Your task to perform on an android device: When is my next appointment? Image 0: 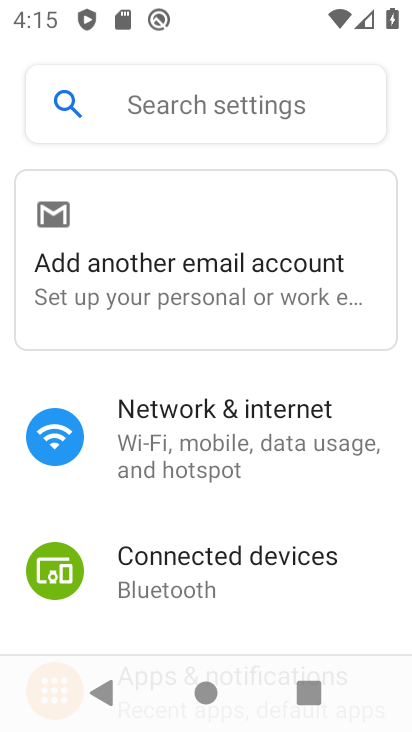
Step 0: press home button
Your task to perform on an android device: When is my next appointment? Image 1: 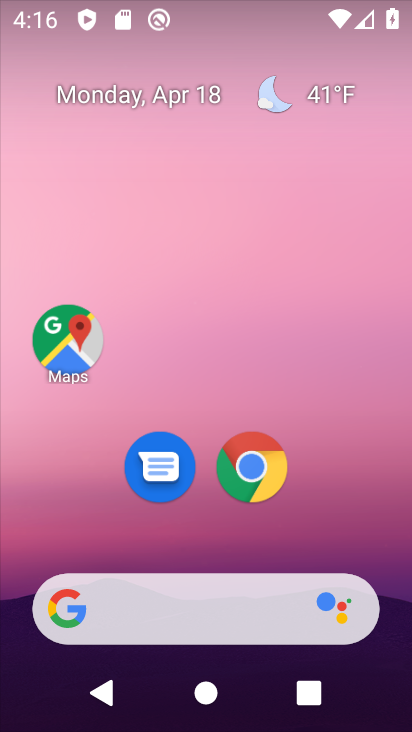
Step 1: drag from (211, 551) to (227, 74)
Your task to perform on an android device: When is my next appointment? Image 2: 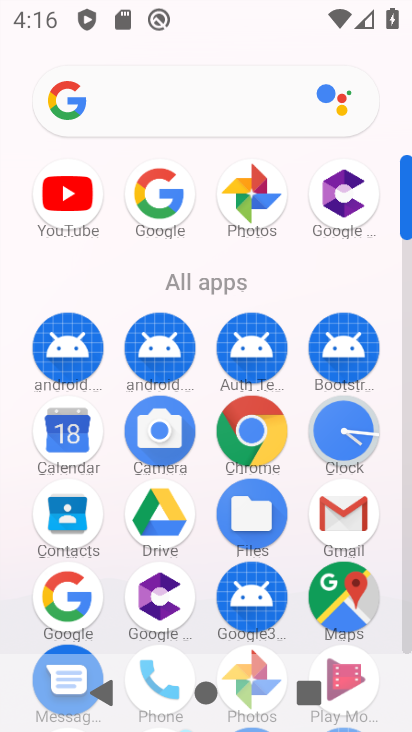
Step 2: click (69, 444)
Your task to perform on an android device: When is my next appointment? Image 3: 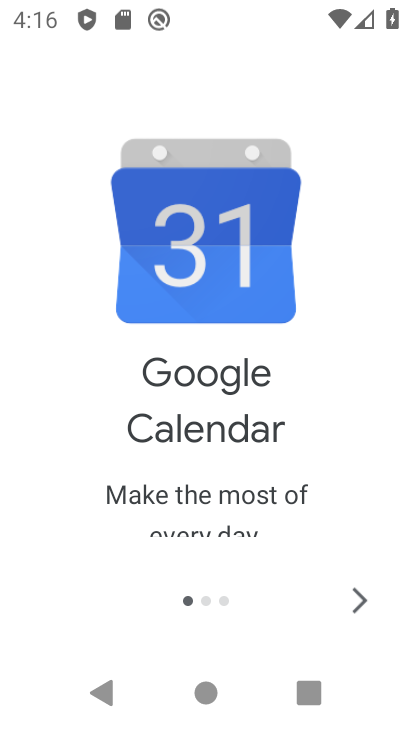
Step 3: click (351, 599)
Your task to perform on an android device: When is my next appointment? Image 4: 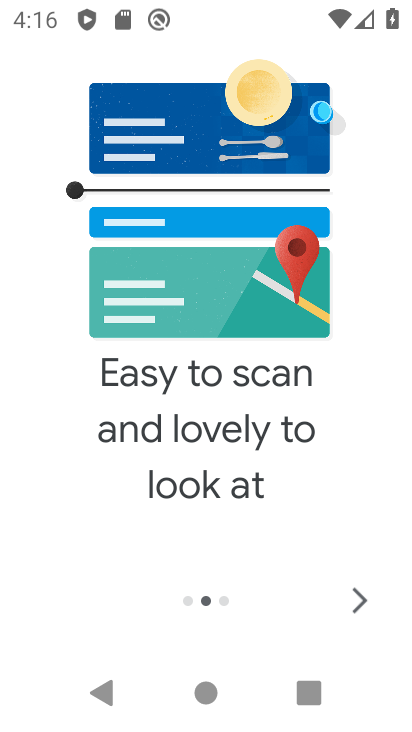
Step 4: click (351, 599)
Your task to perform on an android device: When is my next appointment? Image 5: 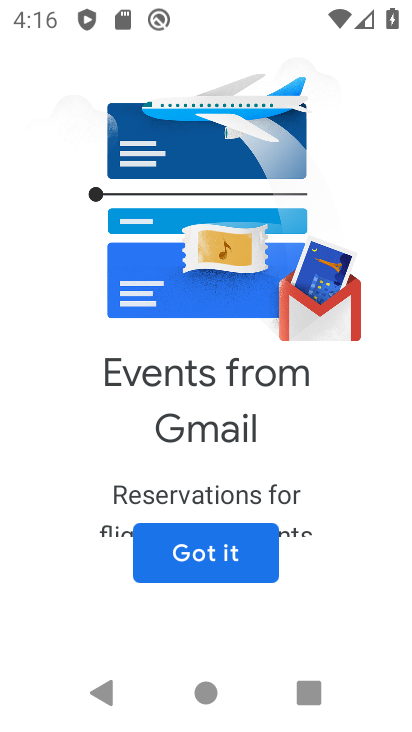
Step 5: click (250, 559)
Your task to perform on an android device: When is my next appointment? Image 6: 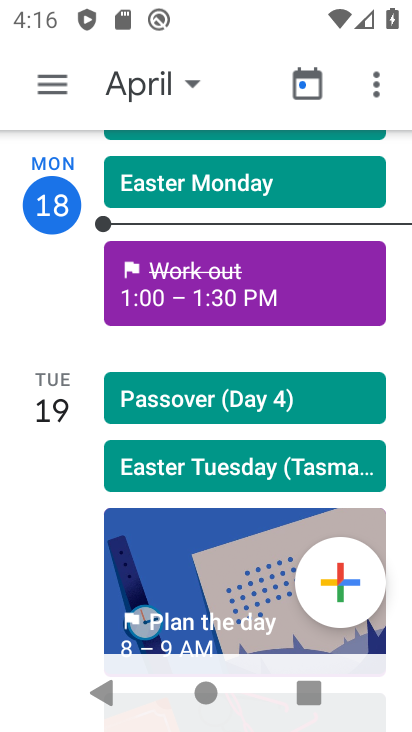
Step 6: click (181, 91)
Your task to perform on an android device: When is my next appointment? Image 7: 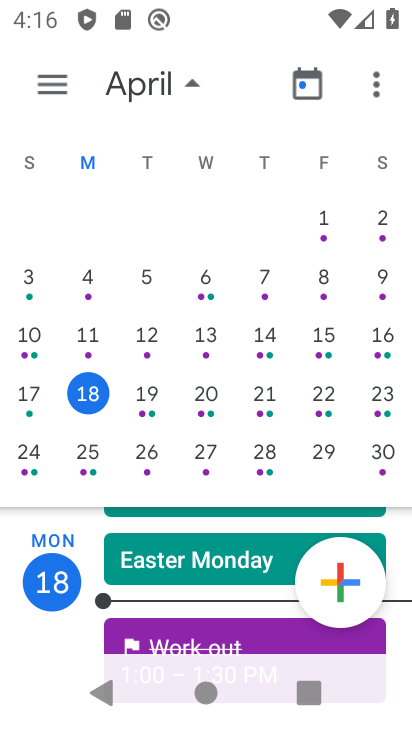
Step 7: click (156, 402)
Your task to perform on an android device: When is my next appointment? Image 8: 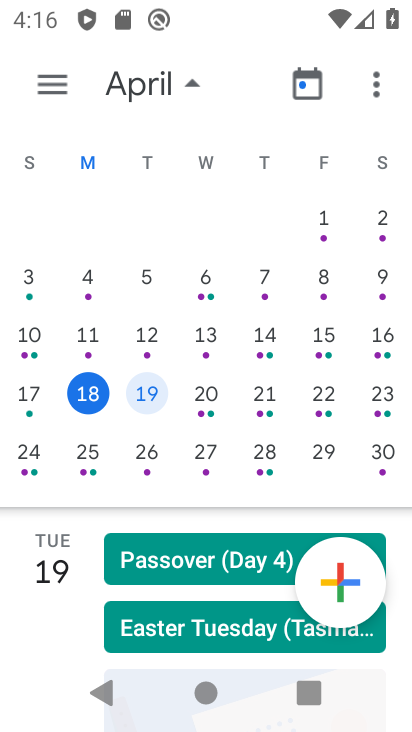
Step 8: click (195, 402)
Your task to perform on an android device: When is my next appointment? Image 9: 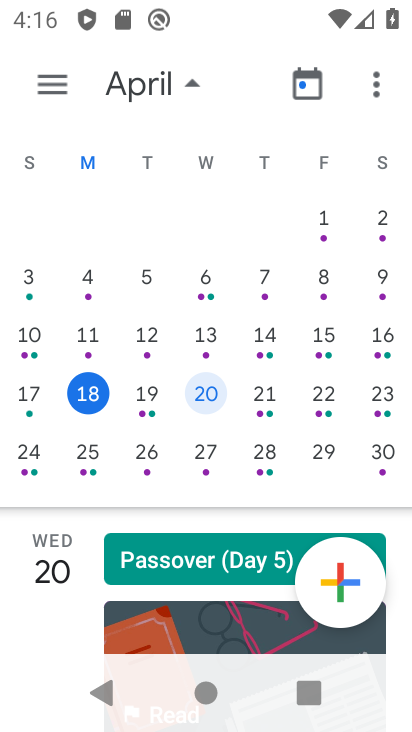
Step 9: click (237, 399)
Your task to perform on an android device: When is my next appointment? Image 10: 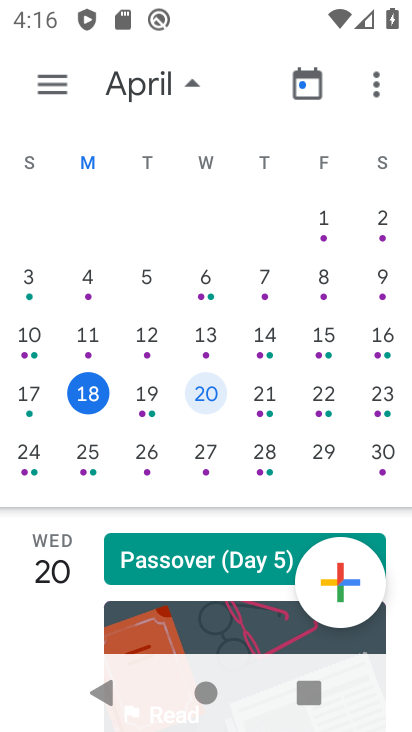
Step 10: task complete